Your task to perform on an android device: open app "YouTube Kids" (install if not already installed) Image 0: 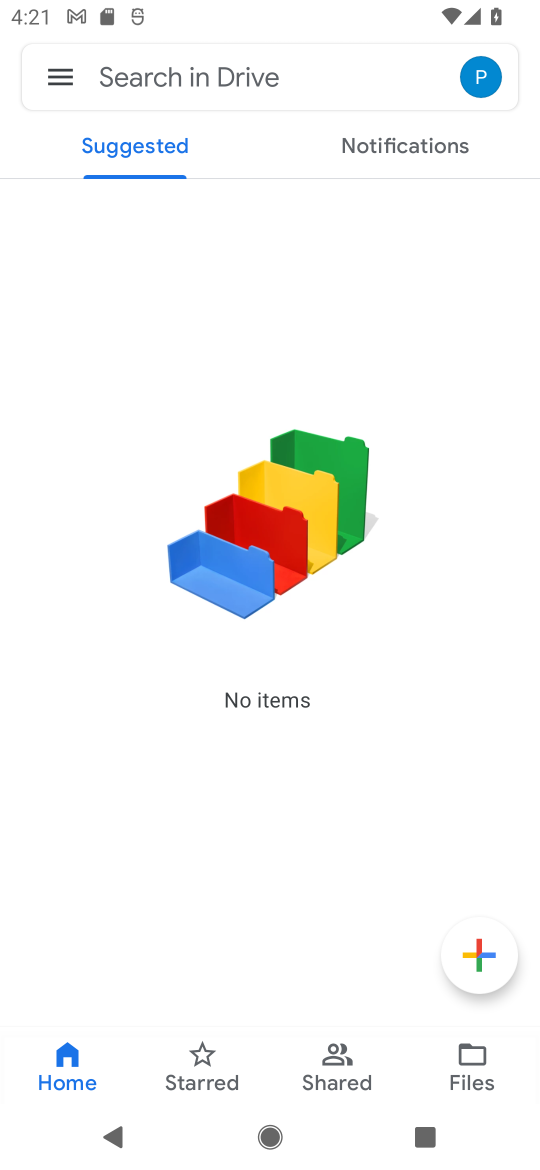
Step 0: press home button
Your task to perform on an android device: open app "YouTube Kids" (install if not already installed) Image 1: 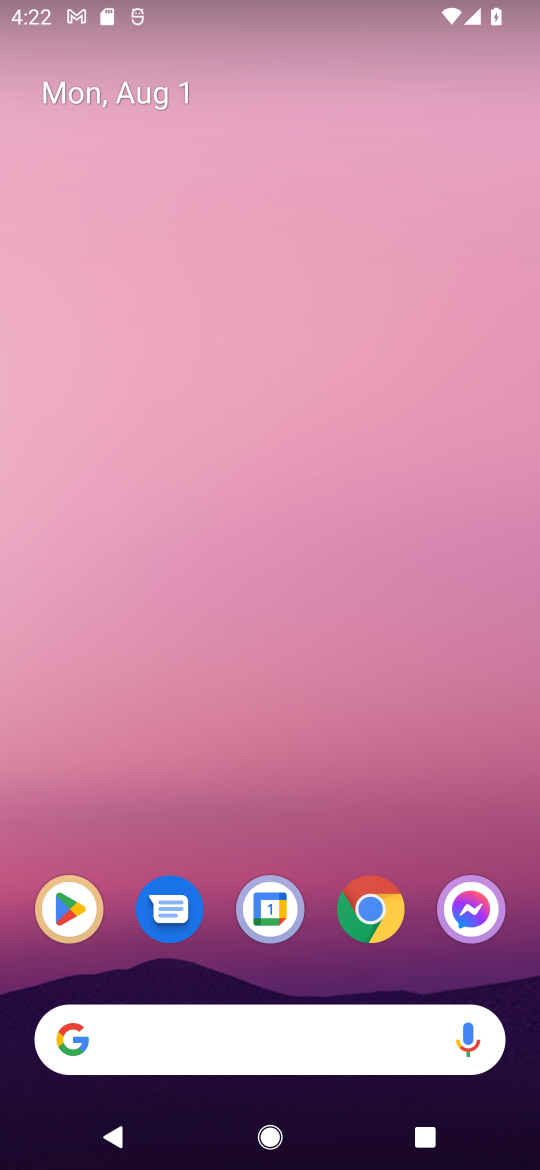
Step 1: click (70, 918)
Your task to perform on an android device: open app "YouTube Kids" (install if not already installed) Image 2: 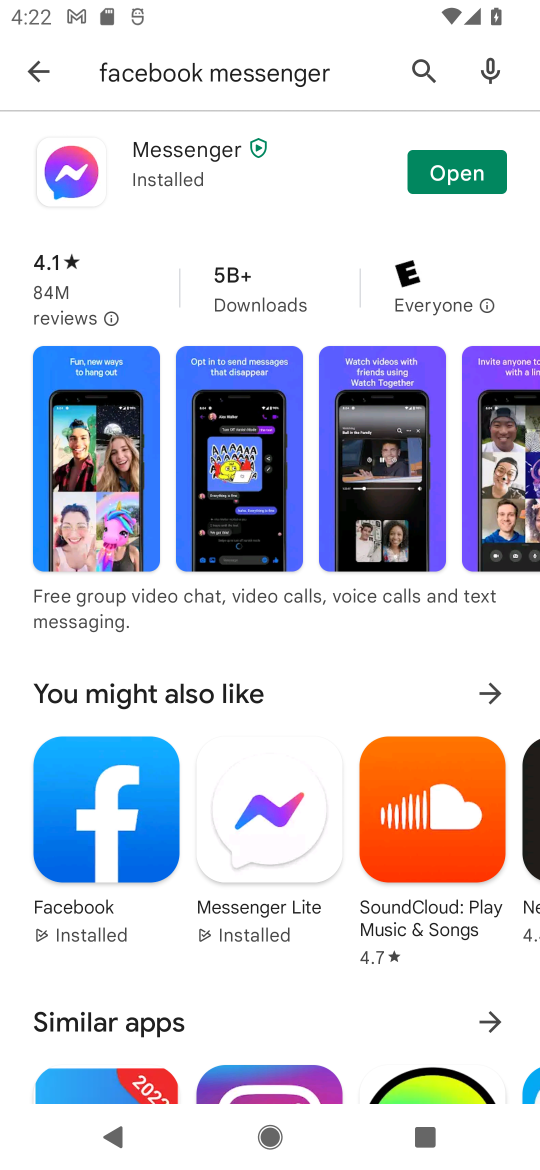
Step 2: click (231, 67)
Your task to perform on an android device: open app "YouTube Kids" (install if not already installed) Image 3: 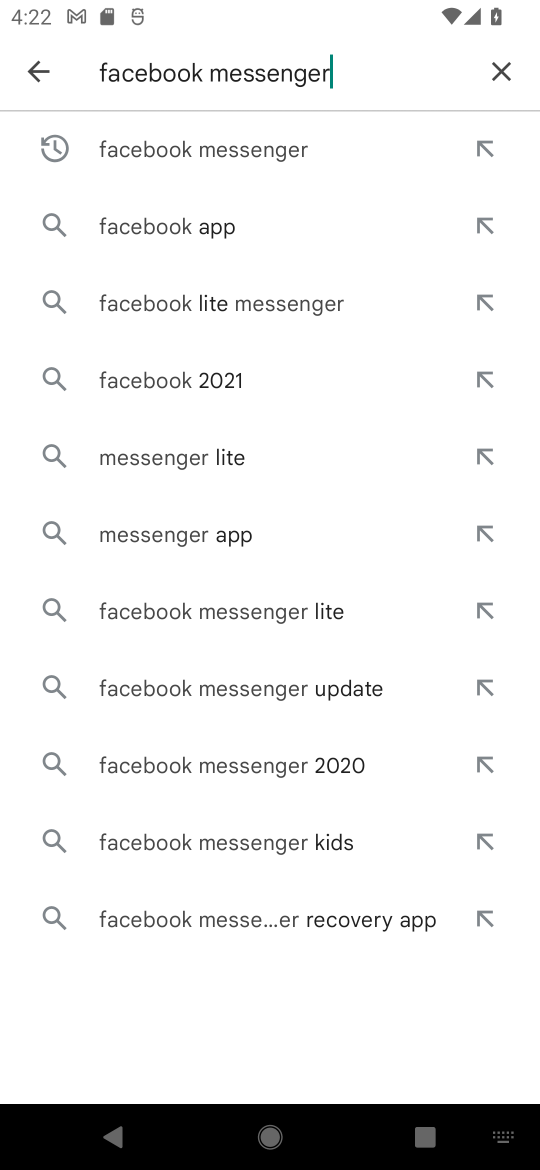
Step 3: click (515, 79)
Your task to perform on an android device: open app "YouTube Kids" (install if not already installed) Image 4: 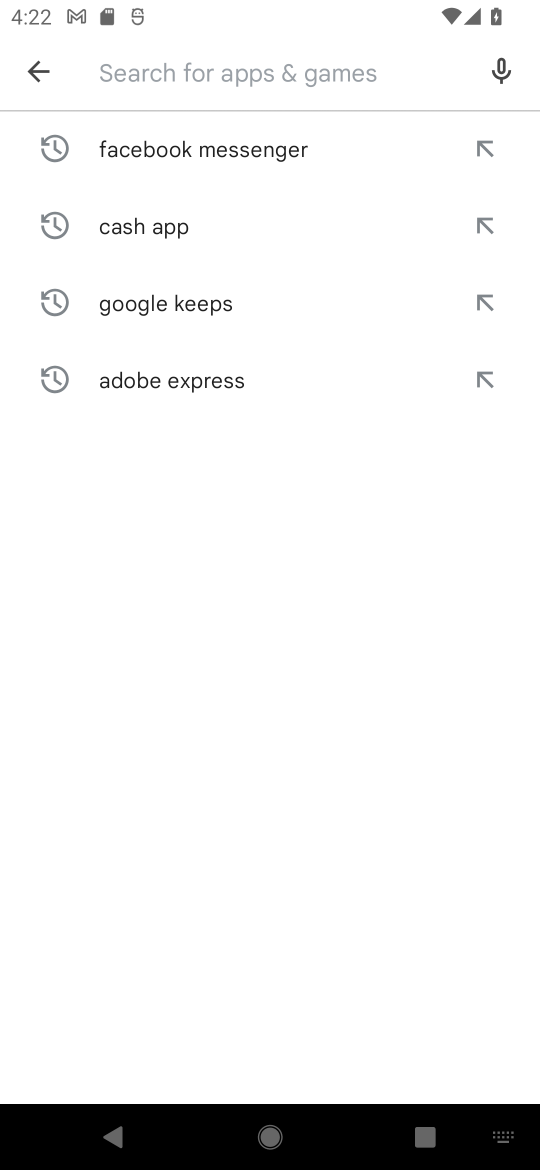
Step 4: type "youtube Kids"
Your task to perform on an android device: open app "YouTube Kids" (install if not already installed) Image 5: 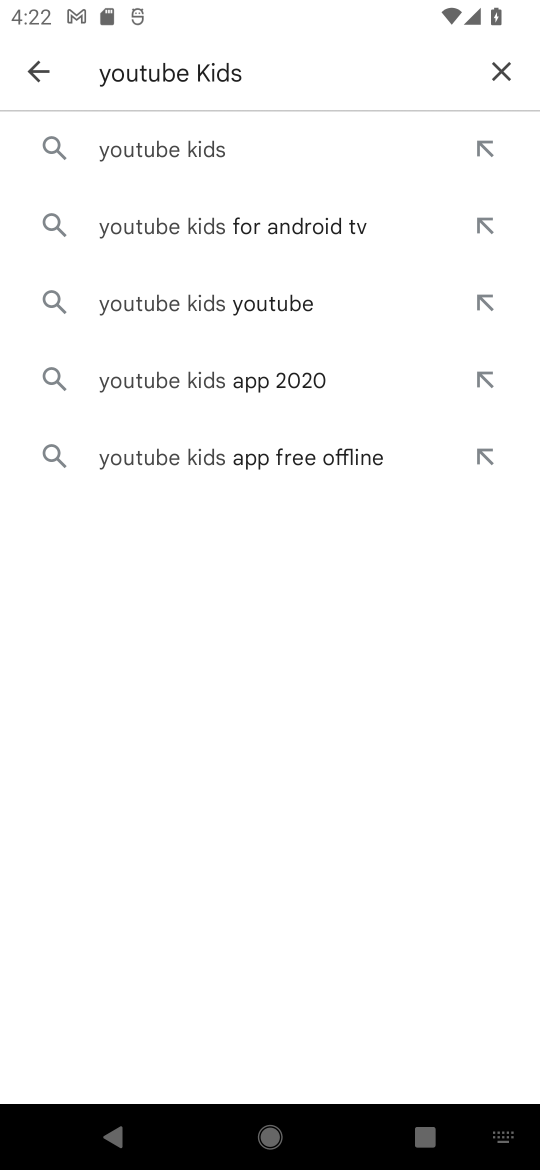
Step 5: click (241, 137)
Your task to perform on an android device: open app "YouTube Kids" (install if not already installed) Image 6: 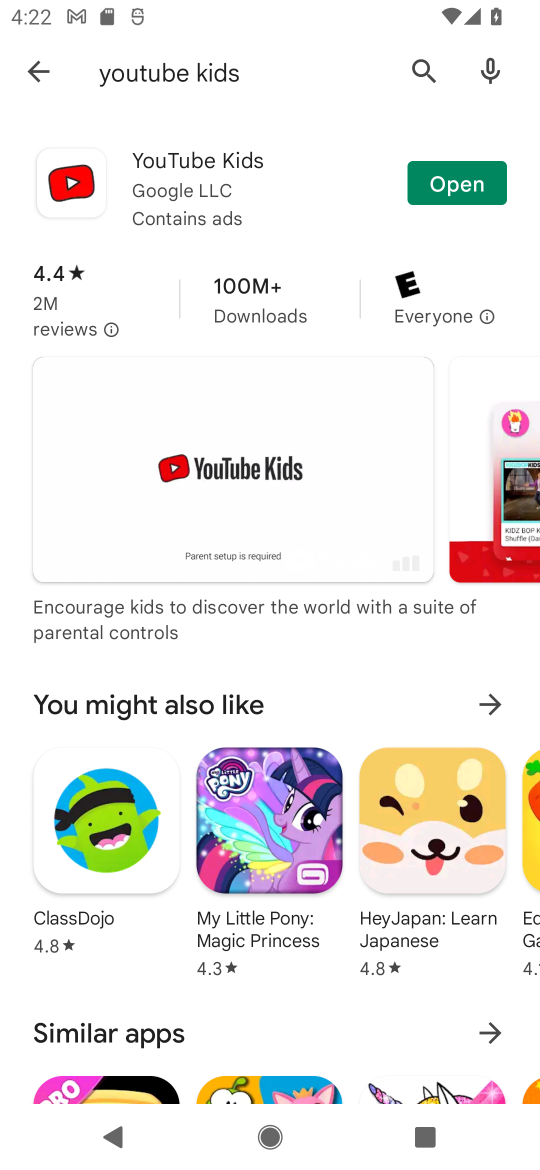
Step 6: click (453, 190)
Your task to perform on an android device: open app "YouTube Kids" (install if not already installed) Image 7: 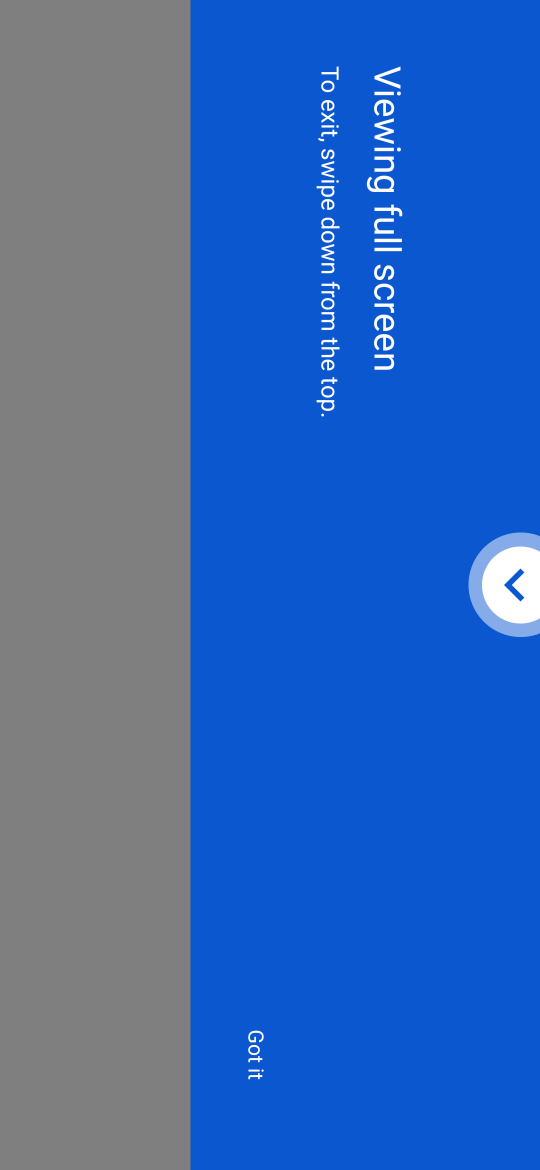
Step 7: click (496, 587)
Your task to perform on an android device: open app "YouTube Kids" (install if not already installed) Image 8: 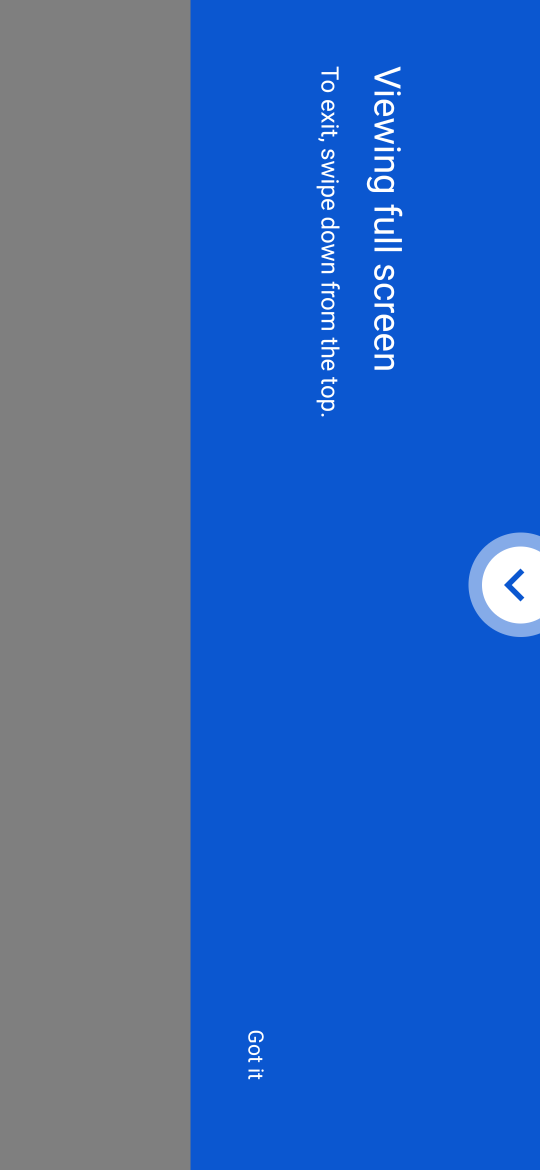
Step 8: click (251, 1063)
Your task to perform on an android device: open app "YouTube Kids" (install if not already installed) Image 9: 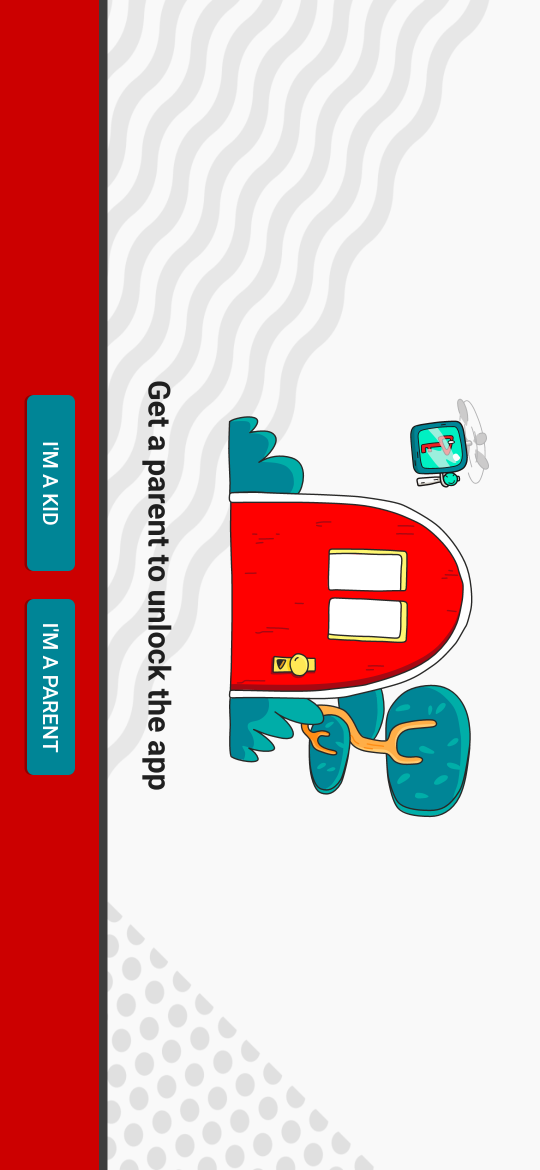
Step 9: click (43, 544)
Your task to perform on an android device: open app "YouTube Kids" (install if not already installed) Image 10: 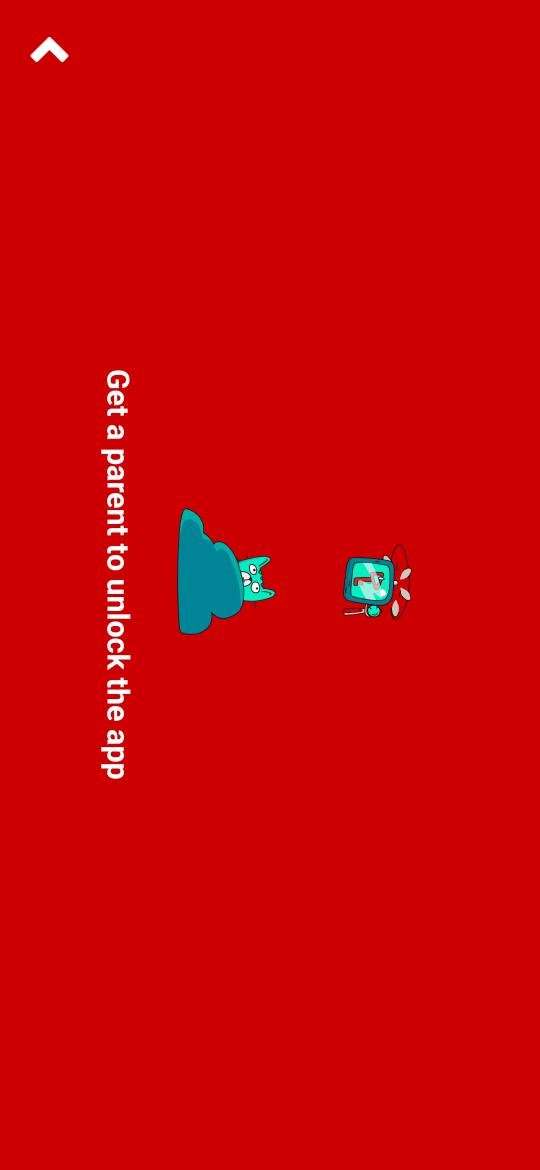
Step 10: click (62, 36)
Your task to perform on an android device: open app "YouTube Kids" (install if not already installed) Image 11: 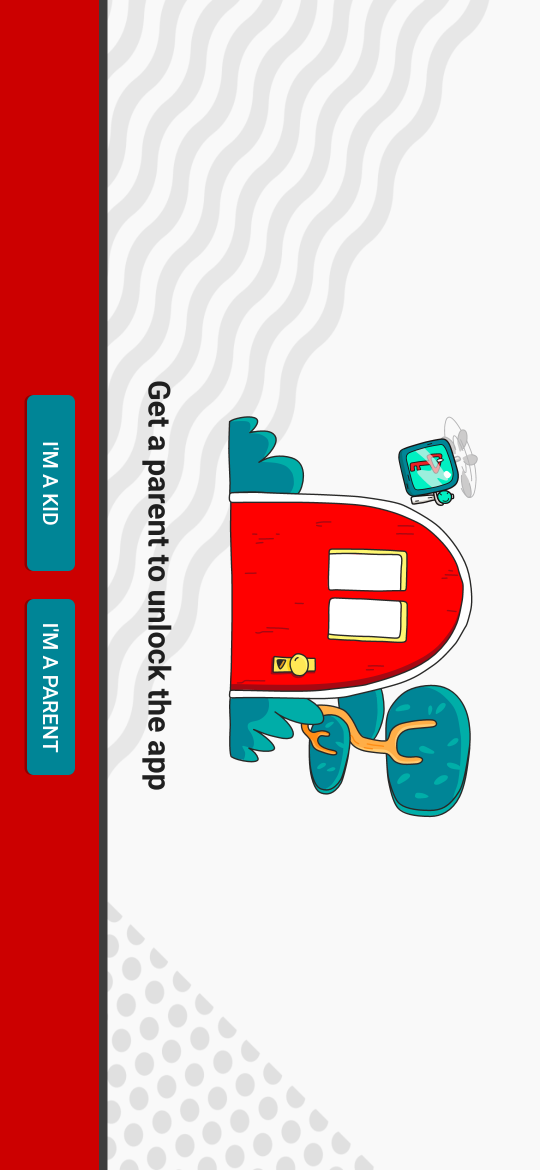
Step 11: task complete